Your task to perform on an android device: find photos in the google photos app Image 0: 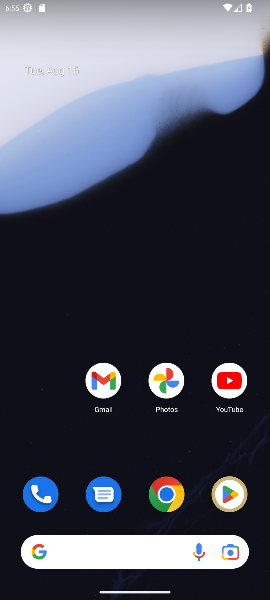
Step 0: drag from (52, 433) to (82, 157)
Your task to perform on an android device: find photos in the google photos app Image 1: 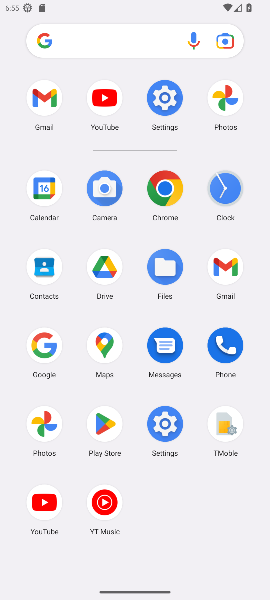
Step 1: click (35, 414)
Your task to perform on an android device: find photos in the google photos app Image 2: 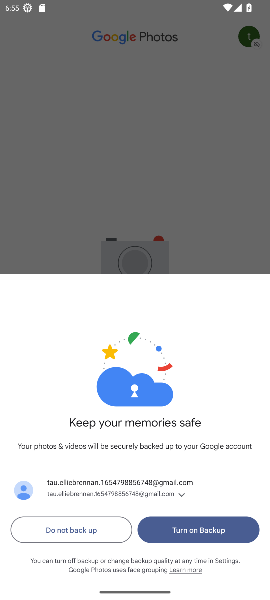
Step 2: task complete